Your task to perform on an android device: find photos in the google photos app Image 0: 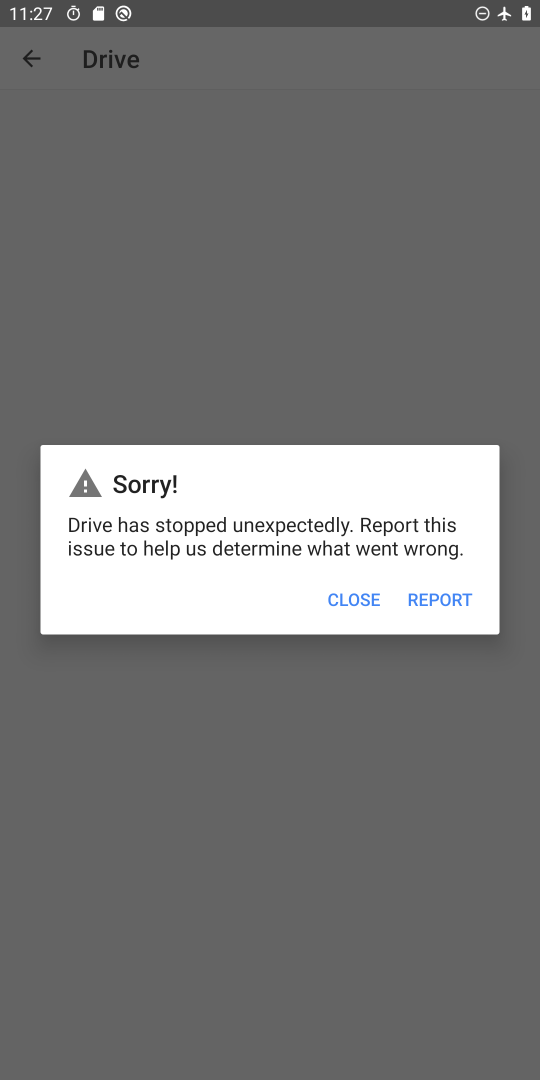
Step 0: press home button
Your task to perform on an android device: find photos in the google photos app Image 1: 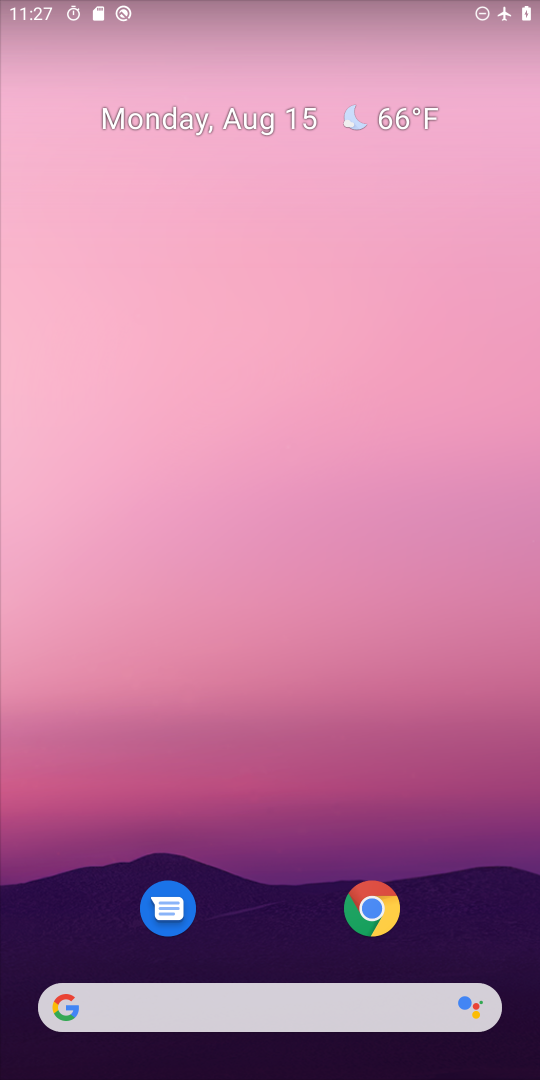
Step 1: drag from (276, 937) to (295, 118)
Your task to perform on an android device: find photos in the google photos app Image 2: 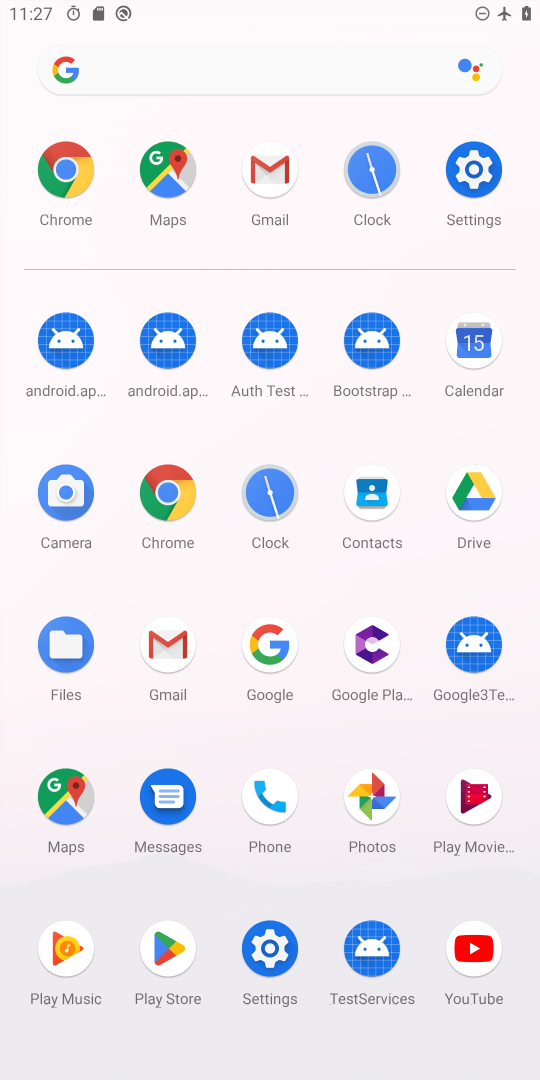
Step 2: click (359, 845)
Your task to perform on an android device: find photos in the google photos app Image 3: 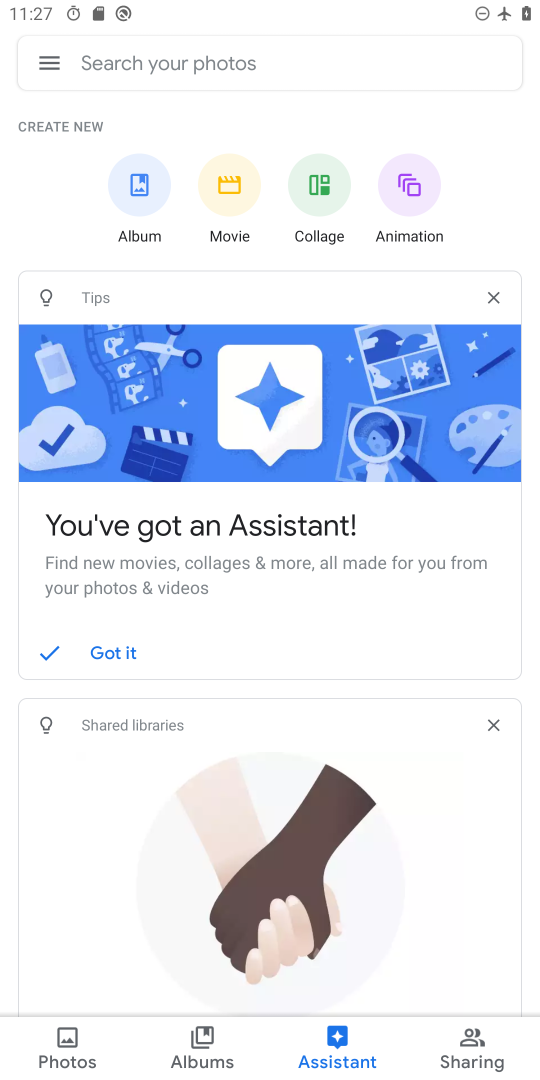
Step 3: click (57, 1047)
Your task to perform on an android device: find photos in the google photos app Image 4: 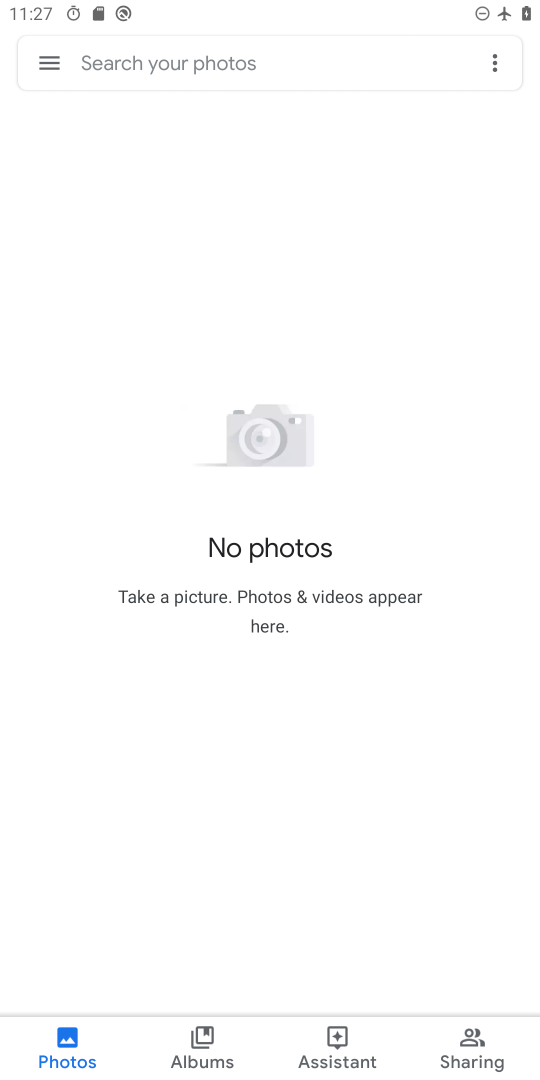
Step 4: task complete